Your task to perform on an android device: Show me recent news Image 0: 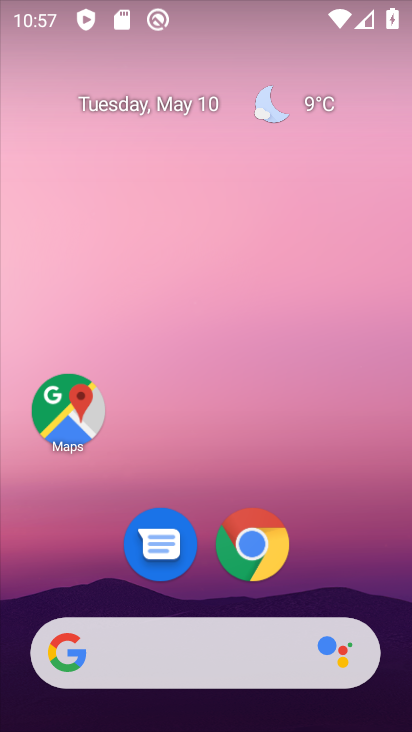
Step 0: drag from (81, 264) to (379, 190)
Your task to perform on an android device: Show me recent news Image 1: 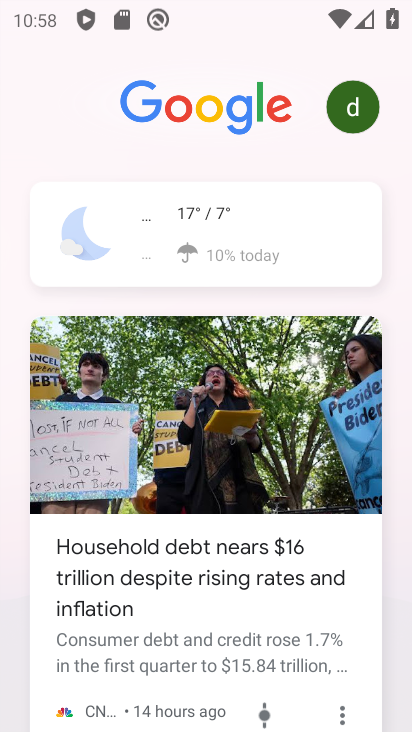
Step 1: task complete